Your task to perform on an android device: toggle data saver in the chrome app Image 0: 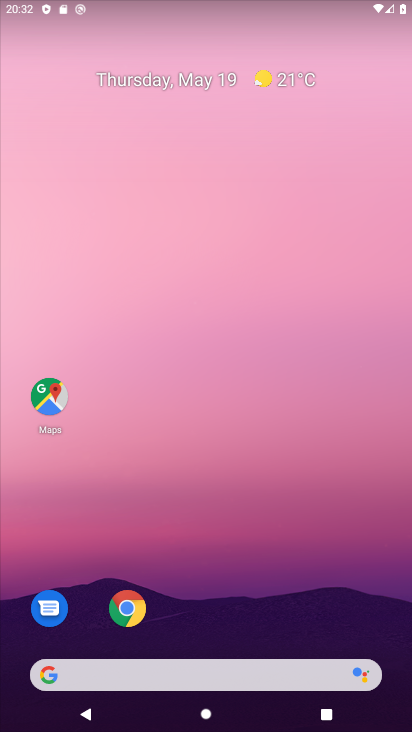
Step 0: click (126, 602)
Your task to perform on an android device: toggle data saver in the chrome app Image 1: 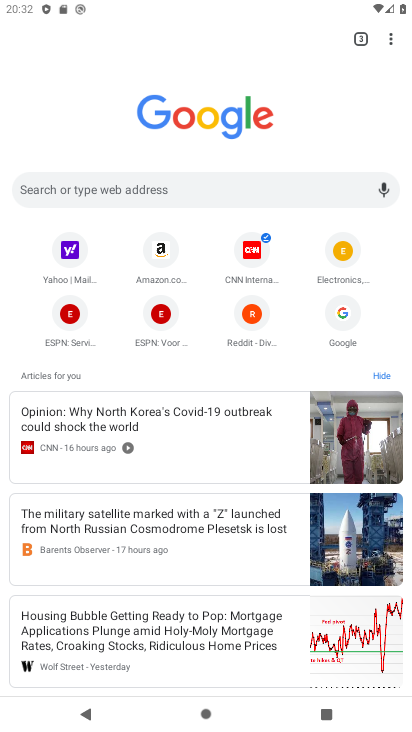
Step 1: click (394, 40)
Your task to perform on an android device: toggle data saver in the chrome app Image 2: 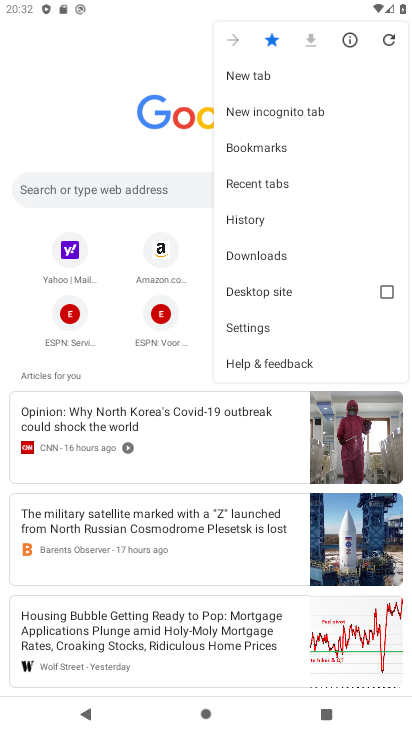
Step 2: click (257, 324)
Your task to perform on an android device: toggle data saver in the chrome app Image 3: 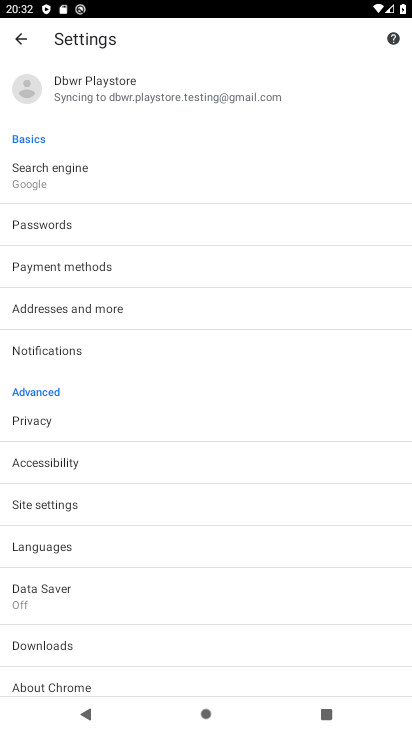
Step 3: click (38, 591)
Your task to perform on an android device: toggle data saver in the chrome app Image 4: 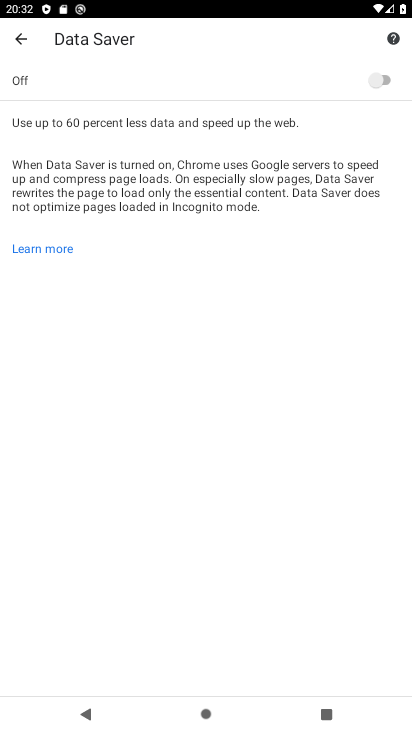
Step 4: click (376, 79)
Your task to perform on an android device: toggle data saver in the chrome app Image 5: 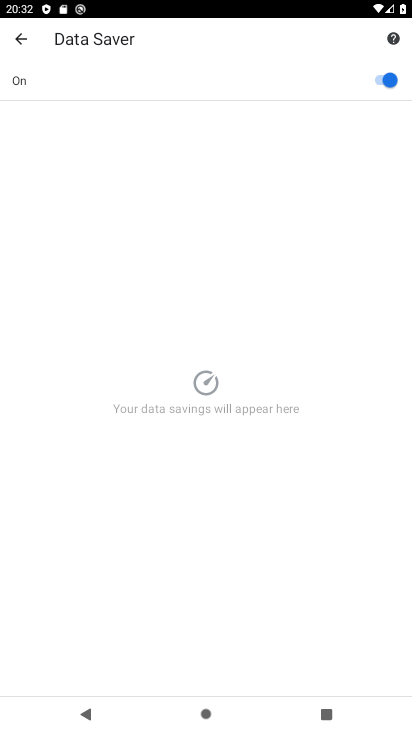
Step 5: task complete